Your task to perform on an android device: change timer sound Image 0: 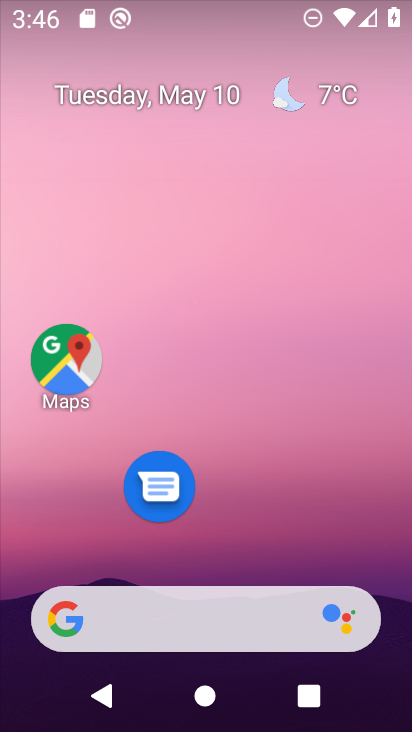
Step 0: drag from (258, 444) to (244, 0)
Your task to perform on an android device: change timer sound Image 1: 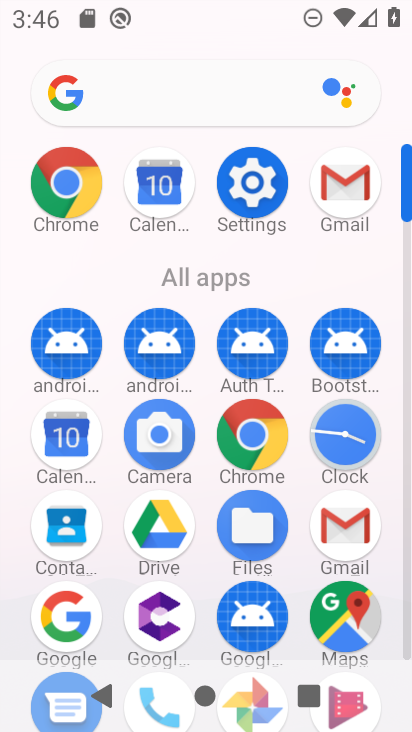
Step 1: drag from (8, 608) to (8, 233)
Your task to perform on an android device: change timer sound Image 2: 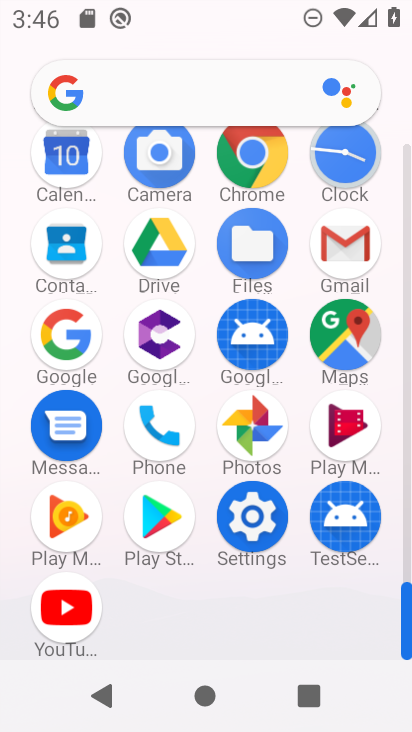
Step 2: drag from (10, 282) to (15, 578)
Your task to perform on an android device: change timer sound Image 3: 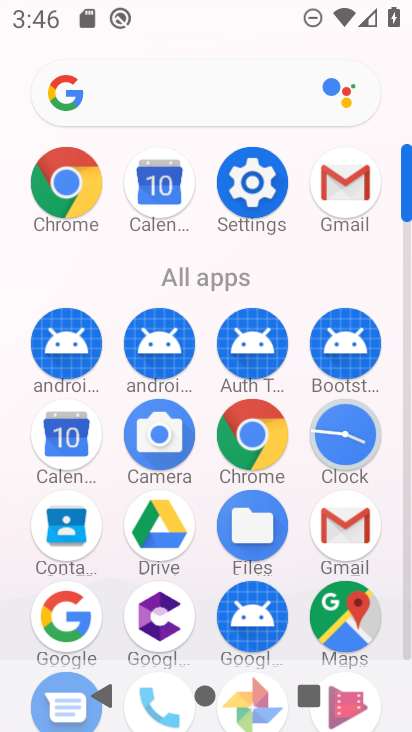
Step 3: drag from (19, 555) to (29, 181)
Your task to perform on an android device: change timer sound Image 4: 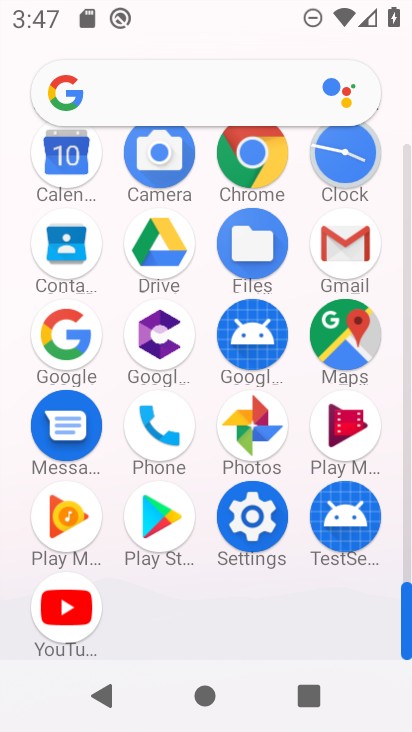
Step 4: click (346, 147)
Your task to perform on an android device: change timer sound Image 5: 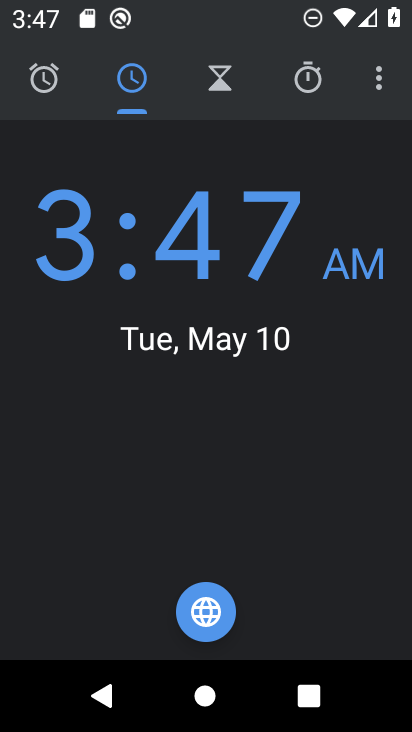
Step 5: drag from (377, 72) to (227, 156)
Your task to perform on an android device: change timer sound Image 6: 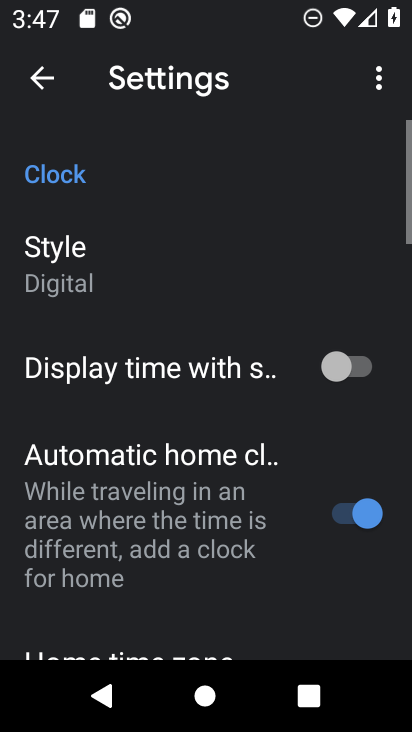
Step 6: drag from (162, 516) to (181, 224)
Your task to perform on an android device: change timer sound Image 7: 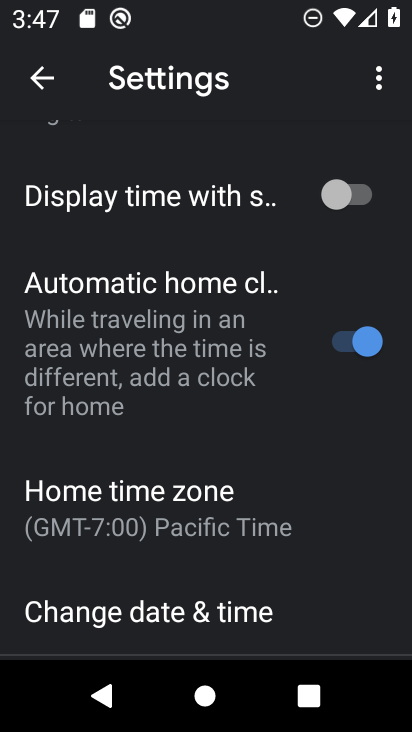
Step 7: drag from (191, 477) to (210, 254)
Your task to perform on an android device: change timer sound Image 8: 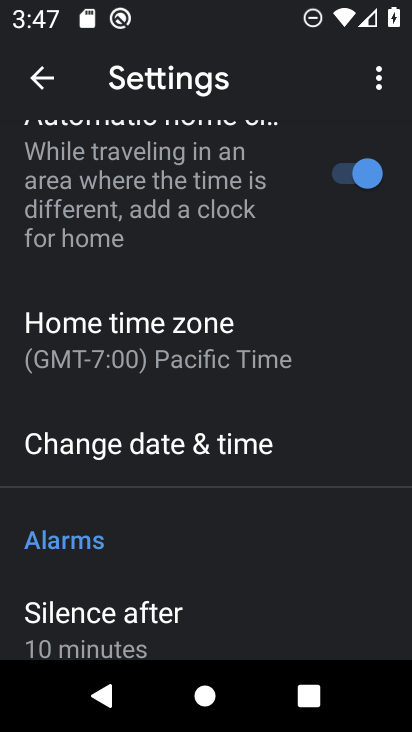
Step 8: drag from (211, 480) to (215, 173)
Your task to perform on an android device: change timer sound Image 9: 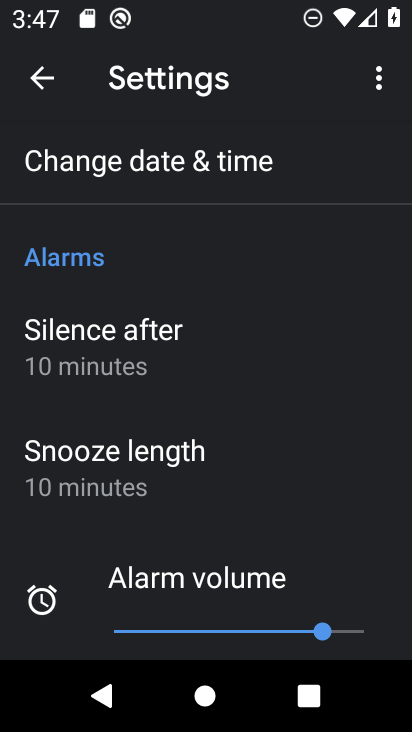
Step 9: drag from (230, 501) to (263, 173)
Your task to perform on an android device: change timer sound Image 10: 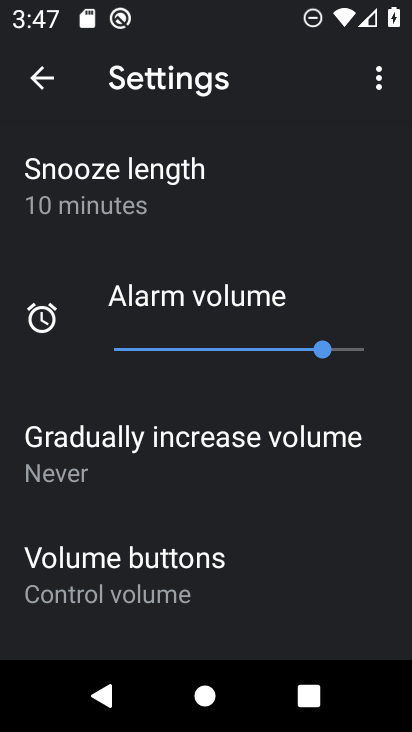
Step 10: drag from (200, 519) to (234, 141)
Your task to perform on an android device: change timer sound Image 11: 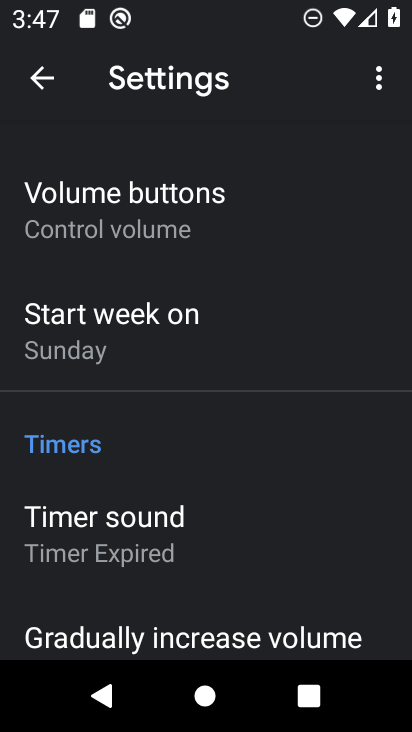
Step 11: drag from (234, 523) to (247, 199)
Your task to perform on an android device: change timer sound Image 12: 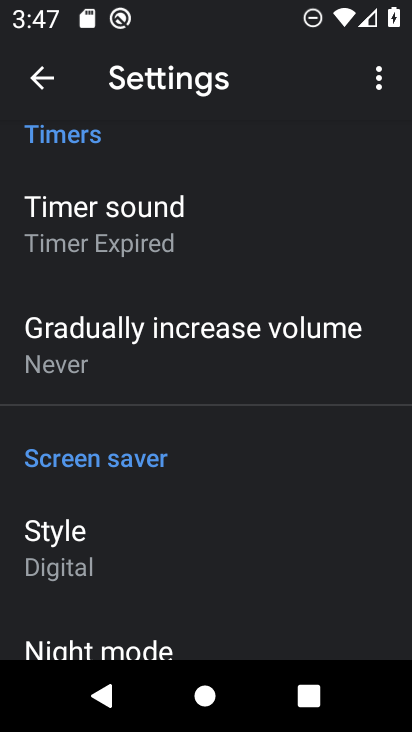
Step 12: click (145, 207)
Your task to perform on an android device: change timer sound Image 13: 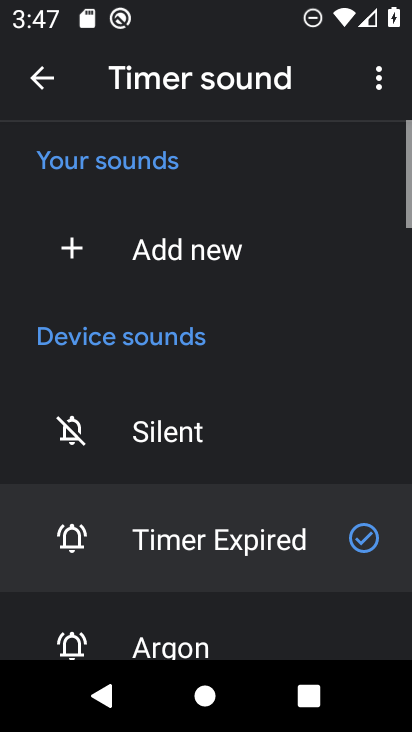
Step 13: drag from (173, 641) to (234, 316)
Your task to perform on an android device: change timer sound Image 14: 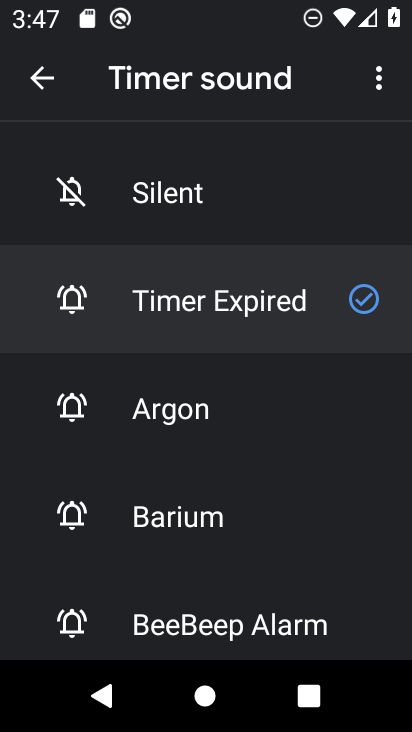
Step 14: click (161, 494)
Your task to perform on an android device: change timer sound Image 15: 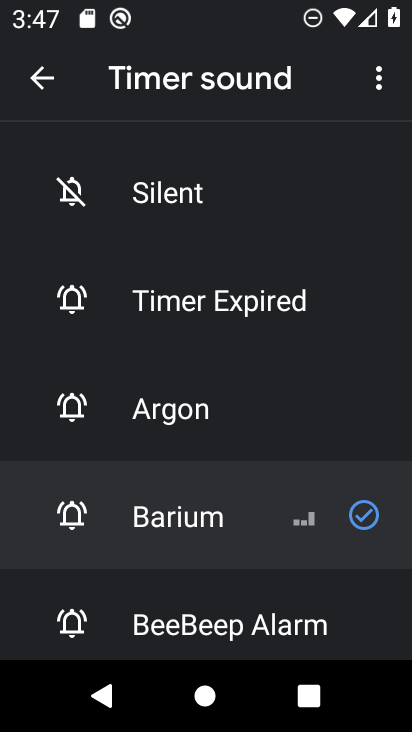
Step 15: task complete